Your task to perform on an android device: read, delete, or share a saved page in the chrome app Image 0: 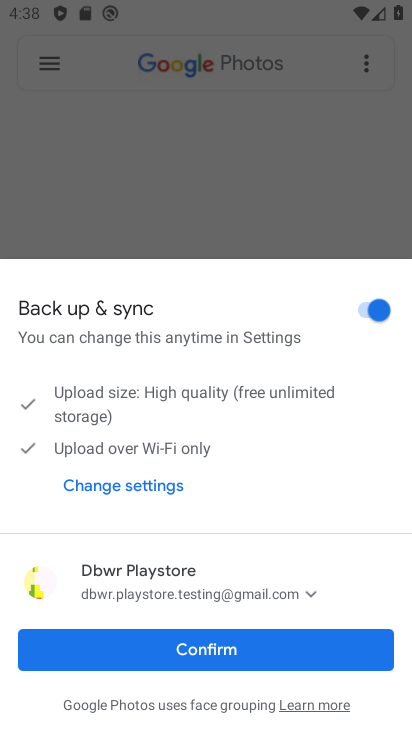
Step 0: press home button
Your task to perform on an android device: read, delete, or share a saved page in the chrome app Image 1: 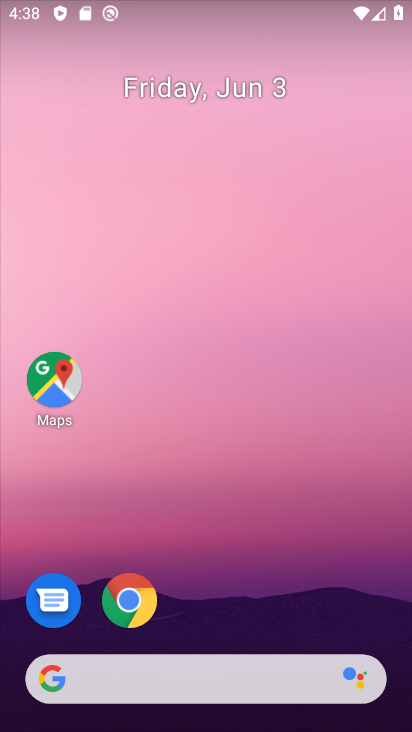
Step 1: click (139, 593)
Your task to perform on an android device: read, delete, or share a saved page in the chrome app Image 2: 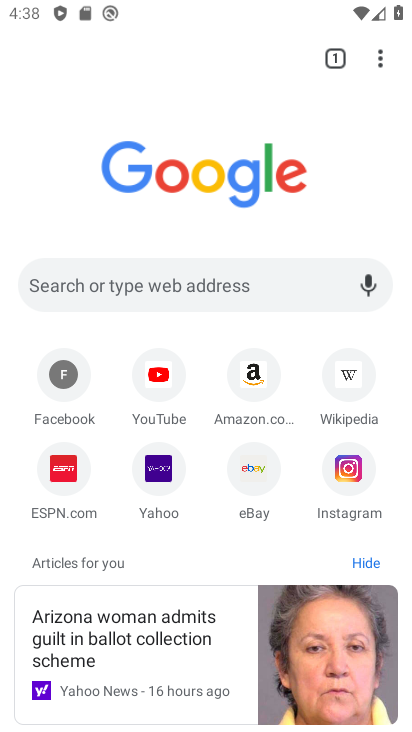
Step 2: click (379, 53)
Your task to perform on an android device: read, delete, or share a saved page in the chrome app Image 3: 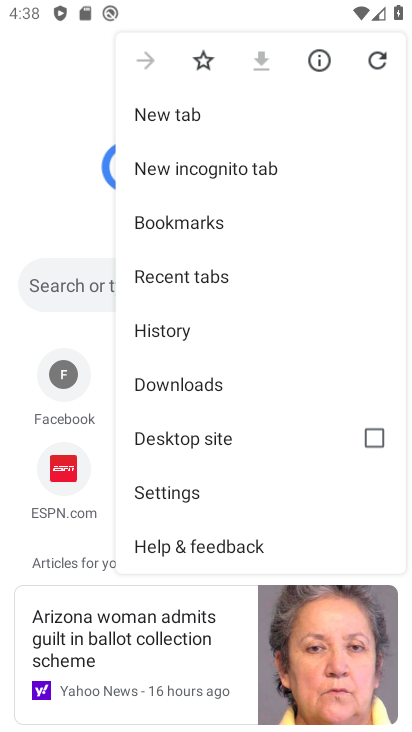
Step 3: click (193, 489)
Your task to perform on an android device: read, delete, or share a saved page in the chrome app Image 4: 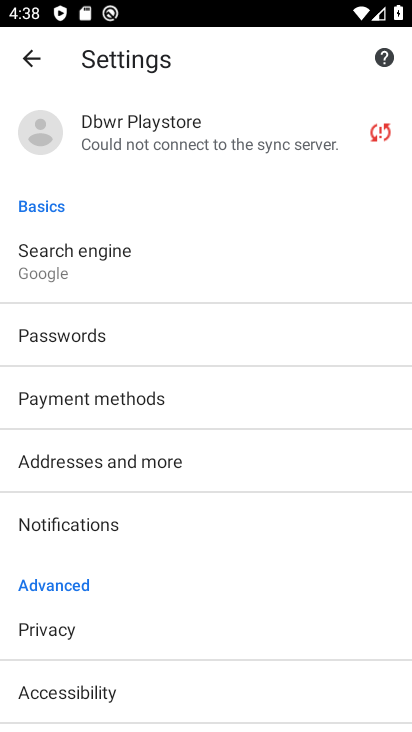
Step 4: click (43, 62)
Your task to perform on an android device: read, delete, or share a saved page in the chrome app Image 5: 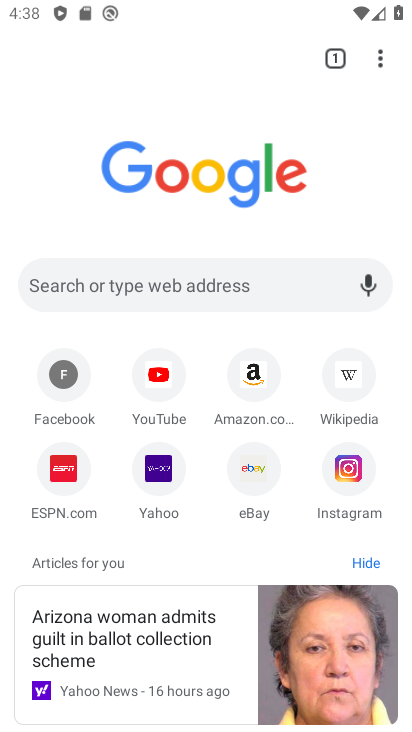
Step 5: click (378, 48)
Your task to perform on an android device: read, delete, or share a saved page in the chrome app Image 6: 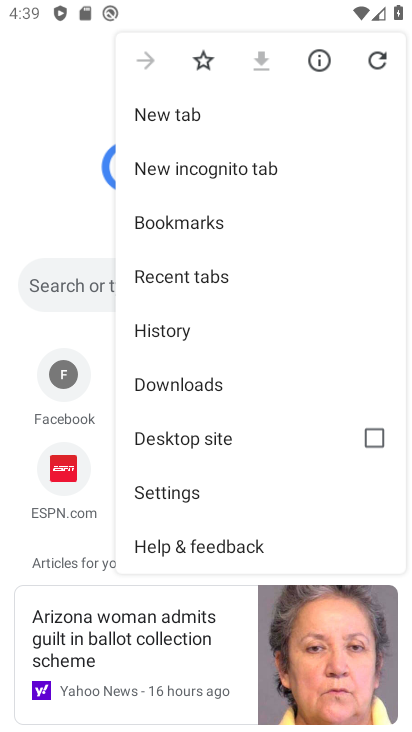
Step 6: click (177, 377)
Your task to perform on an android device: read, delete, or share a saved page in the chrome app Image 7: 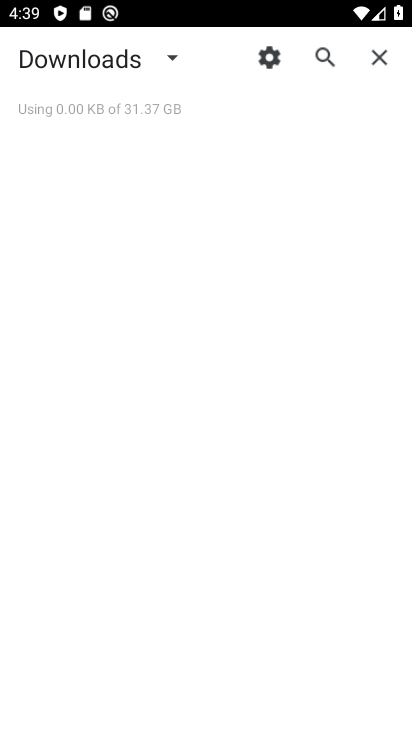
Step 7: task complete